Your task to perform on an android device: Go to CNN.com Image 0: 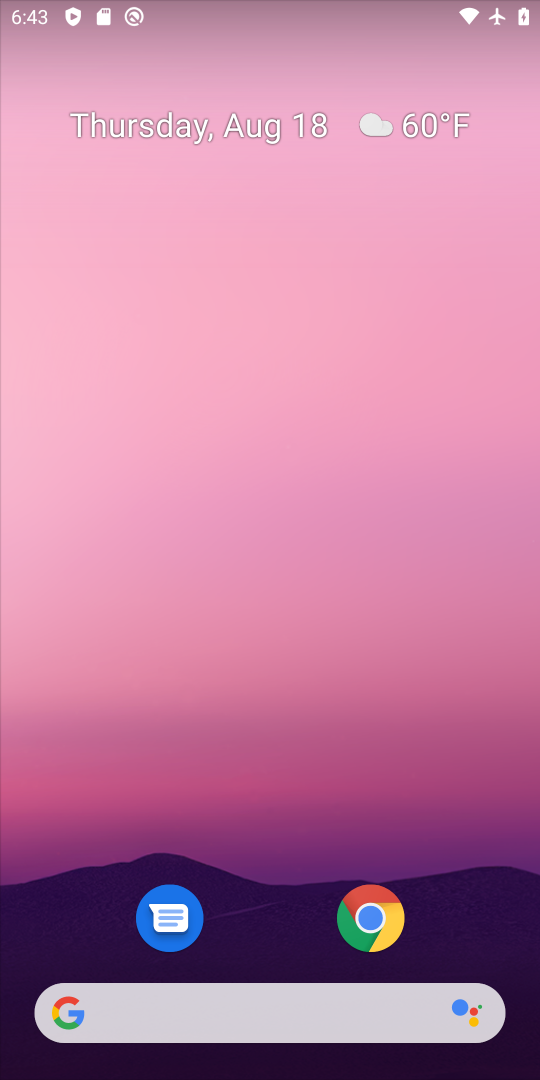
Step 0: press home button
Your task to perform on an android device: Go to CNN.com Image 1: 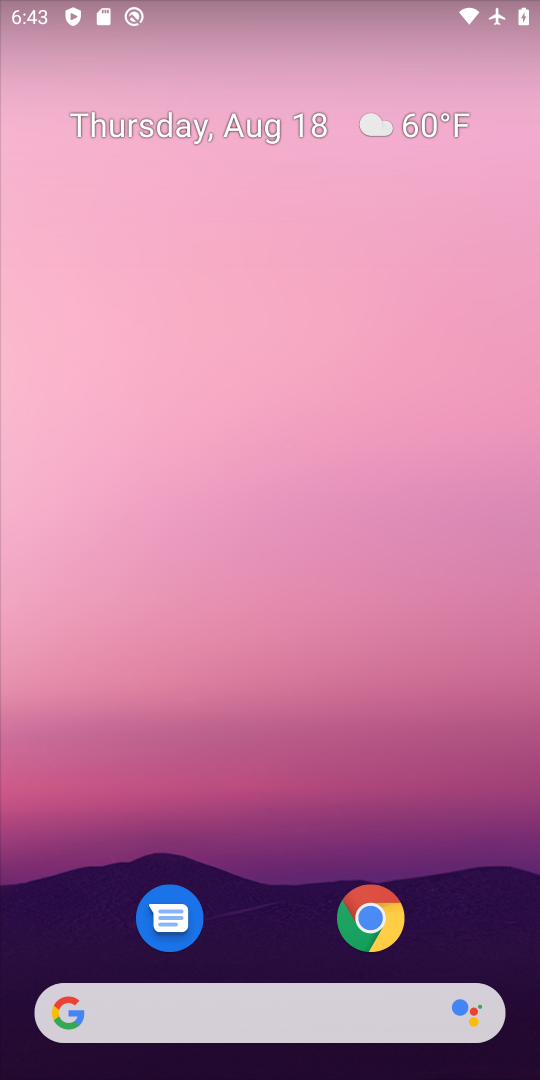
Step 1: click (70, 1031)
Your task to perform on an android device: Go to CNN.com Image 2: 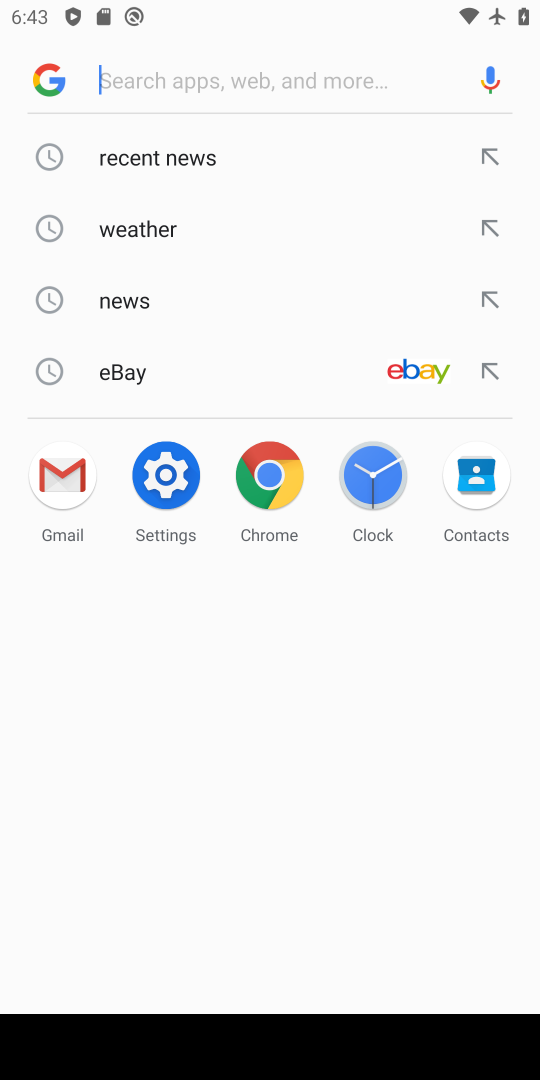
Step 2: type "CNN.com"
Your task to perform on an android device: Go to CNN.com Image 3: 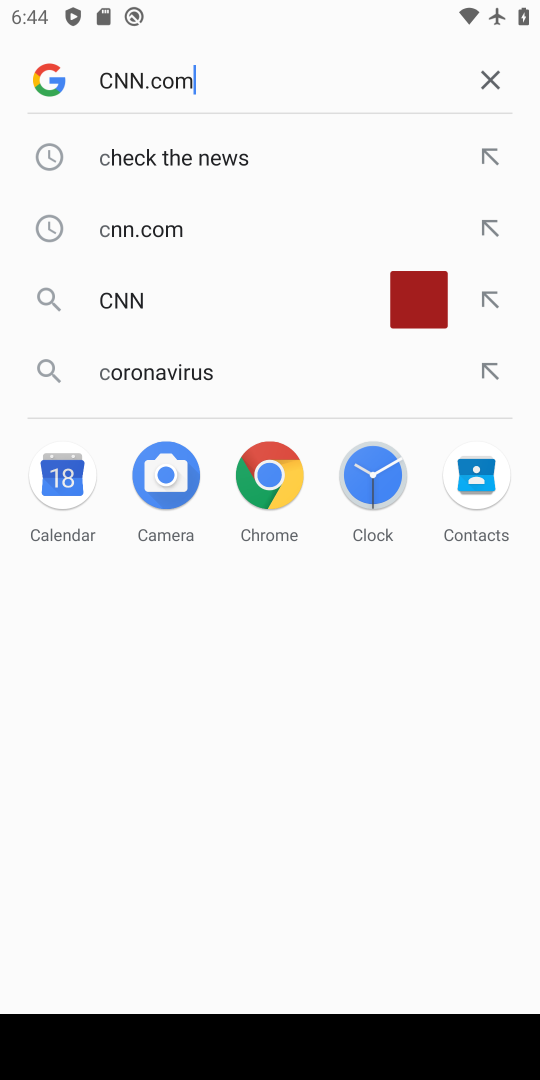
Step 3: press enter
Your task to perform on an android device: Go to CNN.com Image 4: 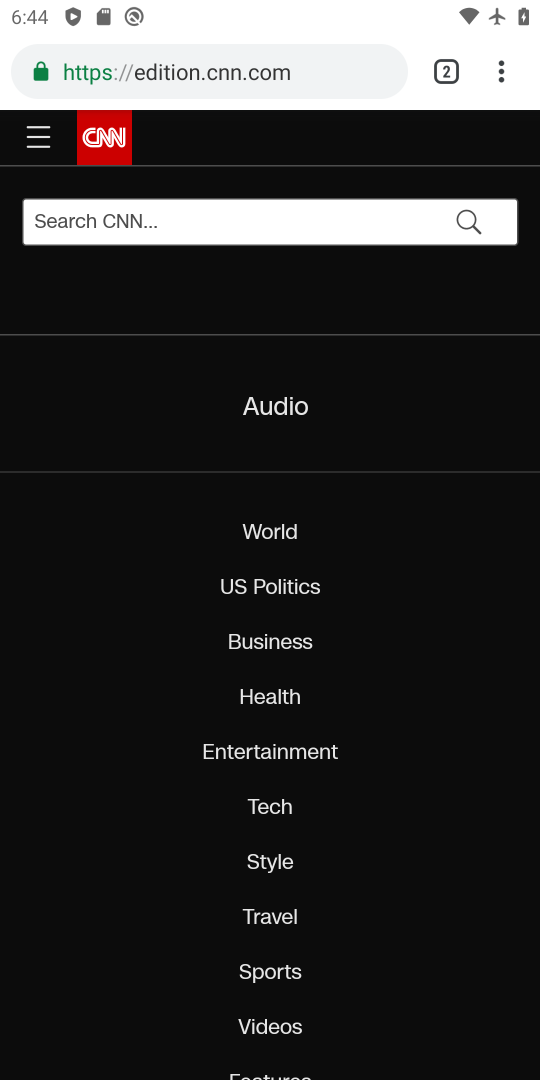
Step 4: task complete